Your task to perform on an android device: change the clock display to show seconds Image 0: 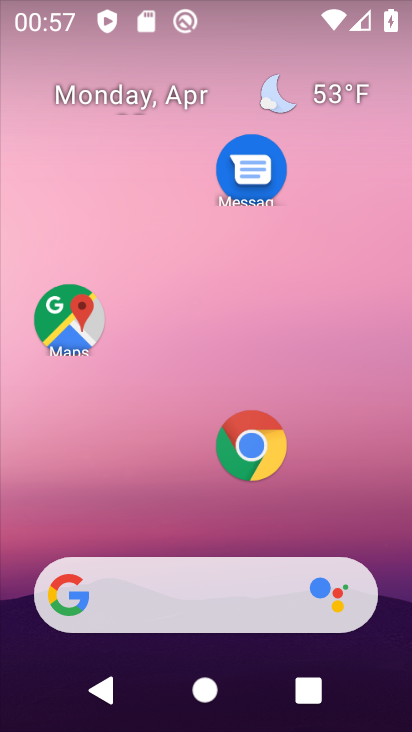
Step 0: drag from (160, 499) to (241, 0)
Your task to perform on an android device: change the clock display to show seconds Image 1: 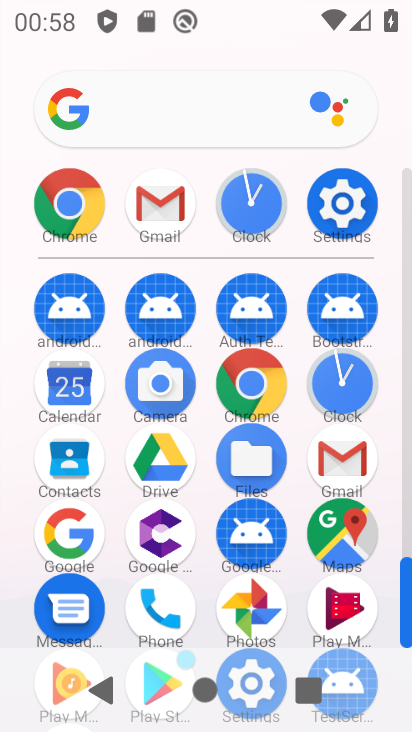
Step 1: click (354, 386)
Your task to perform on an android device: change the clock display to show seconds Image 2: 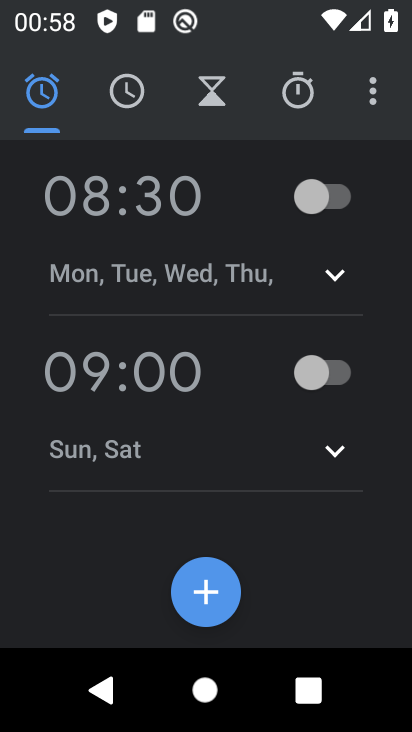
Step 2: click (377, 84)
Your task to perform on an android device: change the clock display to show seconds Image 3: 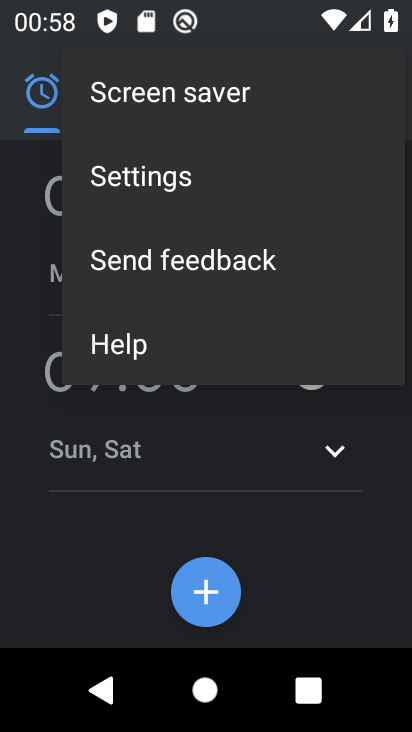
Step 3: click (162, 169)
Your task to perform on an android device: change the clock display to show seconds Image 4: 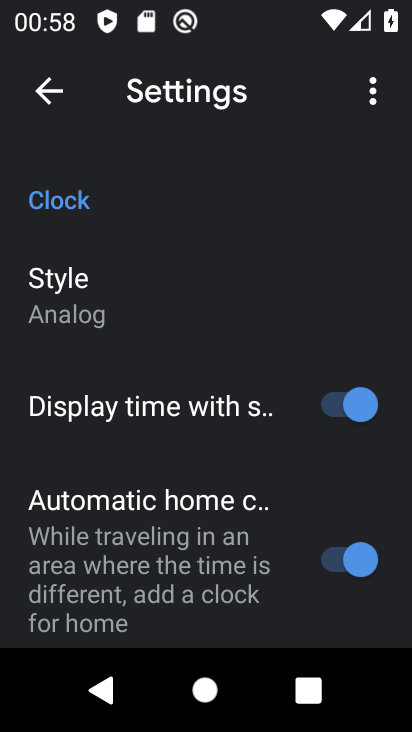
Step 4: click (107, 313)
Your task to perform on an android device: change the clock display to show seconds Image 5: 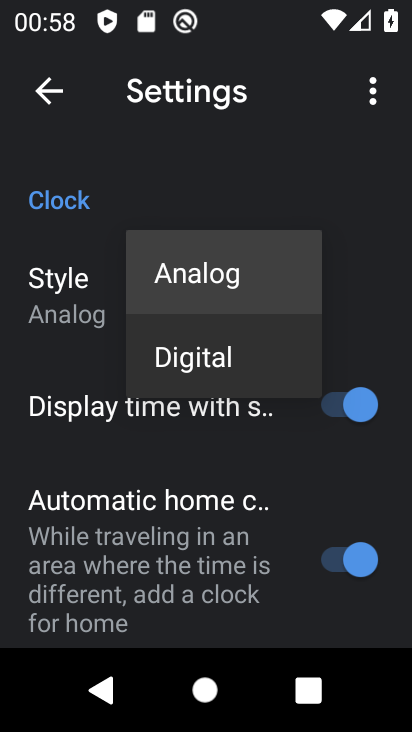
Step 5: click (190, 365)
Your task to perform on an android device: change the clock display to show seconds Image 6: 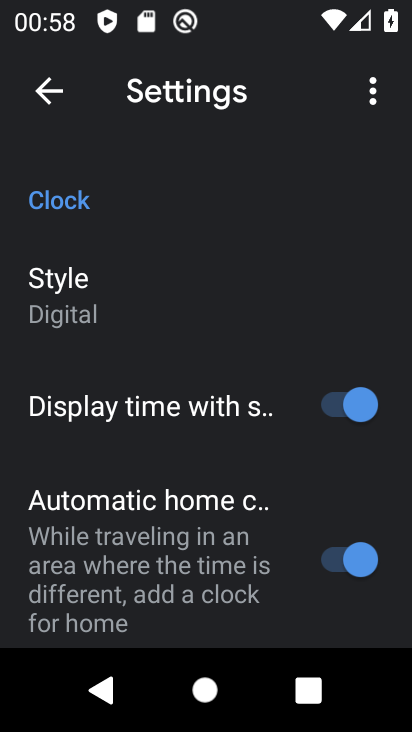
Step 6: task complete